Your task to perform on an android device: install app "LiveIn - Share Your Moment" Image 0: 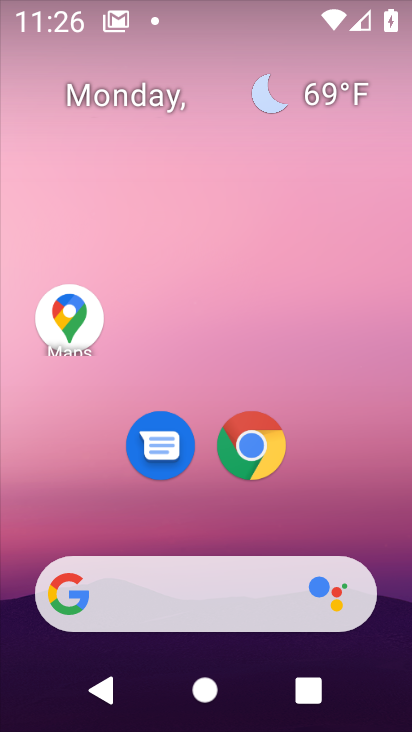
Step 0: drag from (267, 604) to (269, 84)
Your task to perform on an android device: install app "LiveIn - Share Your Moment" Image 1: 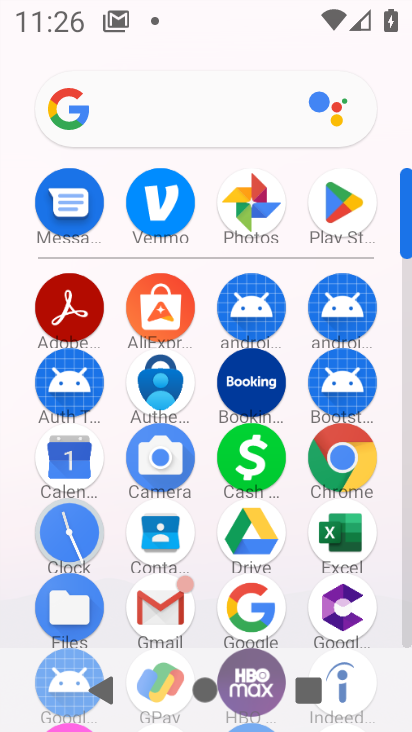
Step 1: click (345, 211)
Your task to perform on an android device: install app "LiveIn - Share Your Moment" Image 2: 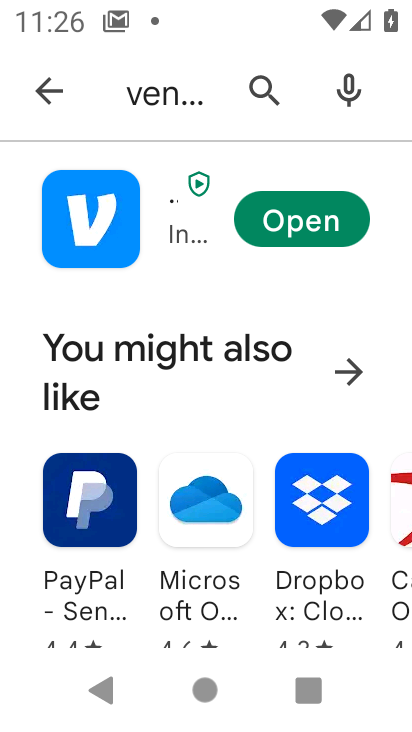
Step 2: click (49, 87)
Your task to perform on an android device: install app "LiveIn - Share Your Moment" Image 3: 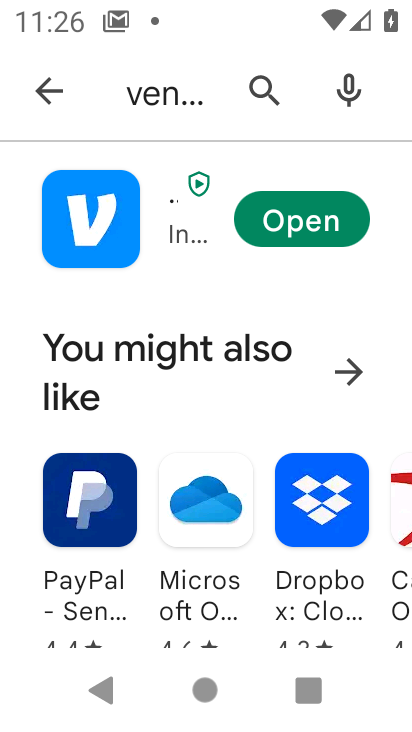
Step 3: drag from (210, 328) to (206, 691)
Your task to perform on an android device: install app "LiveIn - Share Your Moment" Image 4: 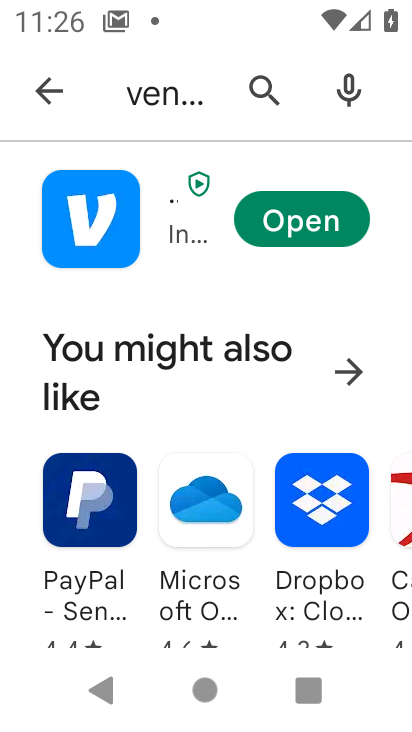
Step 4: press back button
Your task to perform on an android device: install app "LiveIn - Share Your Moment" Image 5: 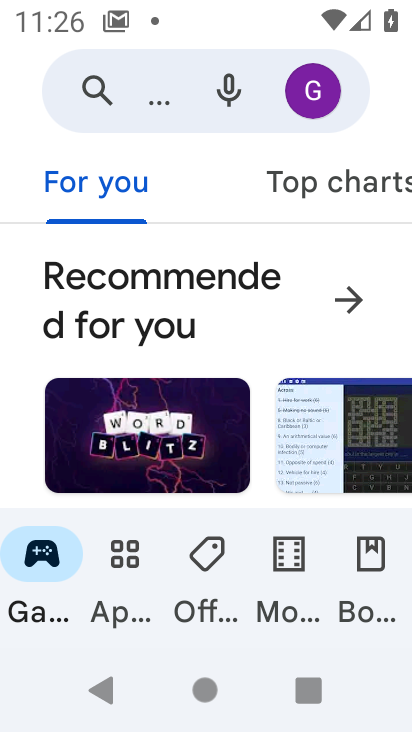
Step 5: click (105, 111)
Your task to perform on an android device: install app "LiveIn - Share Your Moment" Image 6: 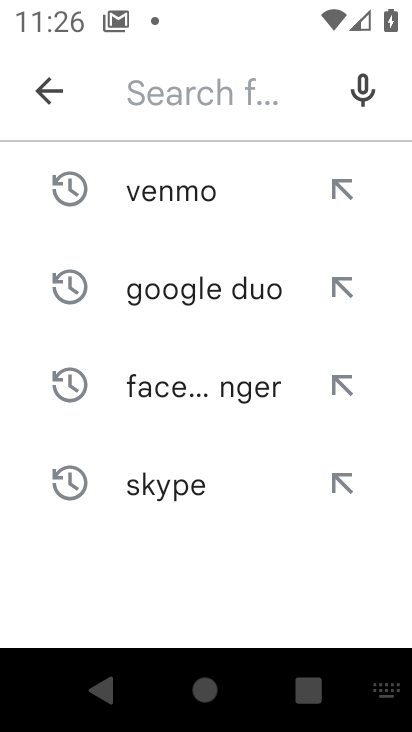
Step 6: type "LiveIn - Share Your Moment"
Your task to perform on an android device: install app "LiveIn - Share Your Moment" Image 7: 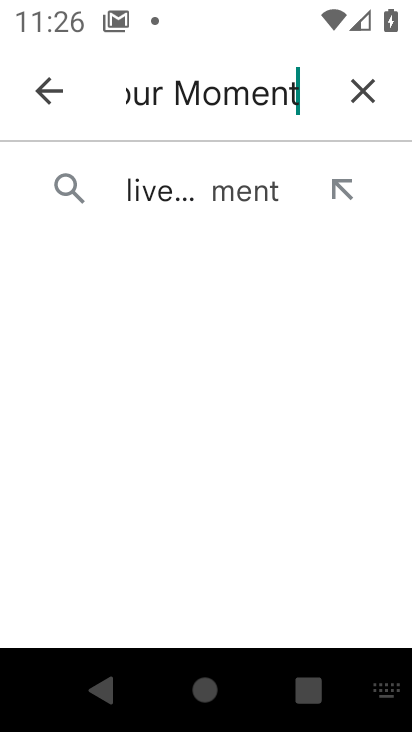
Step 7: click (286, 186)
Your task to perform on an android device: install app "LiveIn - Share Your Moment" Image 8: 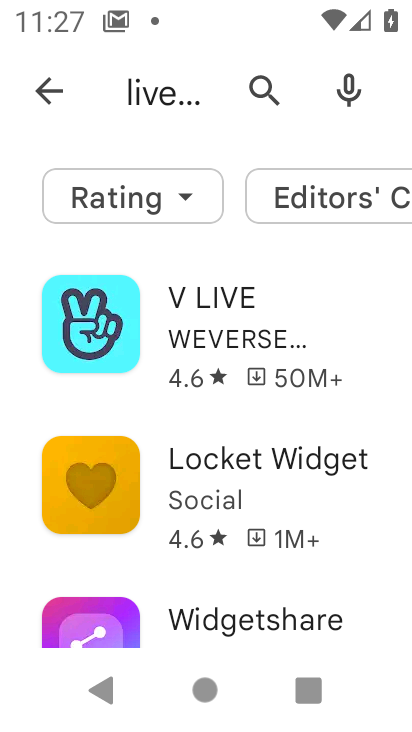
Step 8: click (247, 322)
Your task to perform on an android device: install app "LiveIn - Share Your Moment" Image 9: 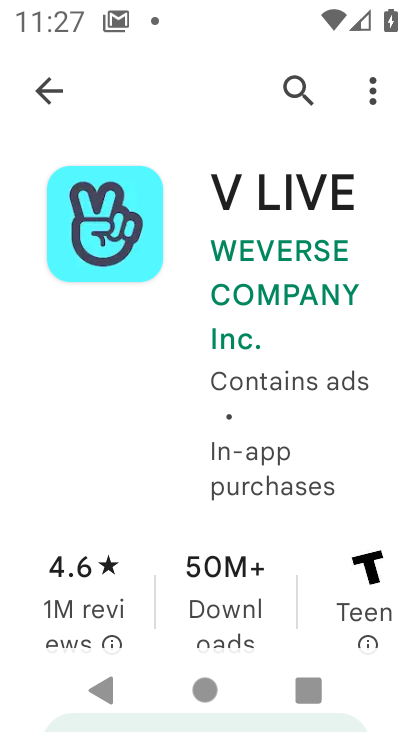
Step 9: drag from (187, 580) to (193, 127)
Your task to perform on an android device: install app "LiveIn - Share Your Moment" Image 10: 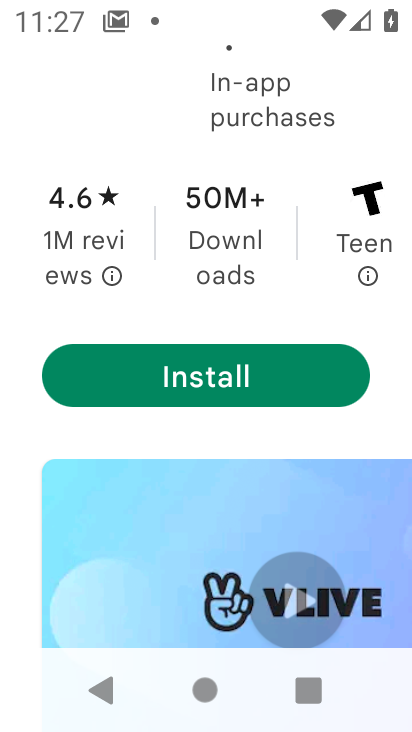
Step 10: click (272, 368)
Your task to perform on an android device: install app "LiveIn - Share Your Moment" Image 11: 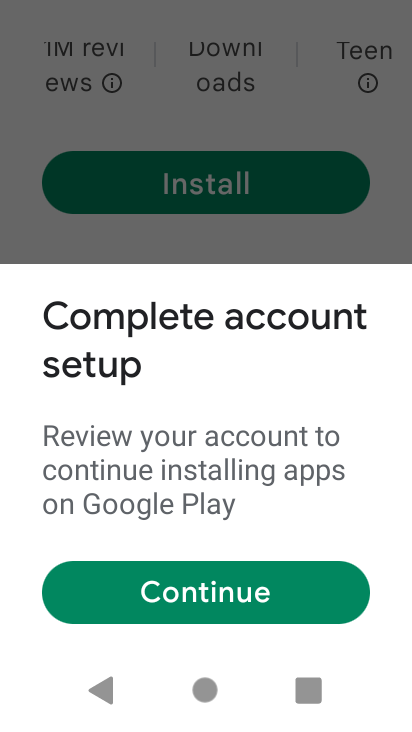
Step 11: click (214, 603)
Your task to perform on an android device: install app "LiveIn - Share Your Moment" Image 12: 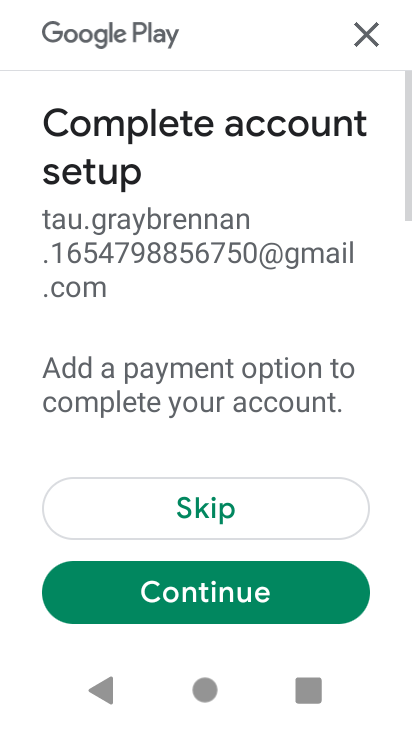
Step 12: click (237, 508)
Your task to perform on an android device: install app "LiveIn - Share Your Moment" Image 13: 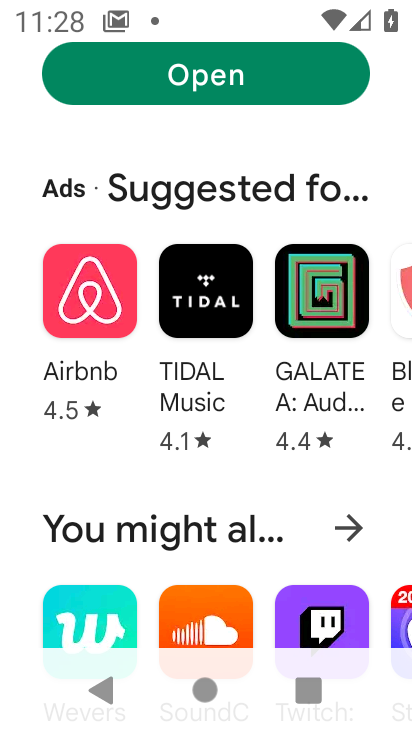
Step 13: task complete